Your task to perform on an android device: all mails in gmail Image 0: 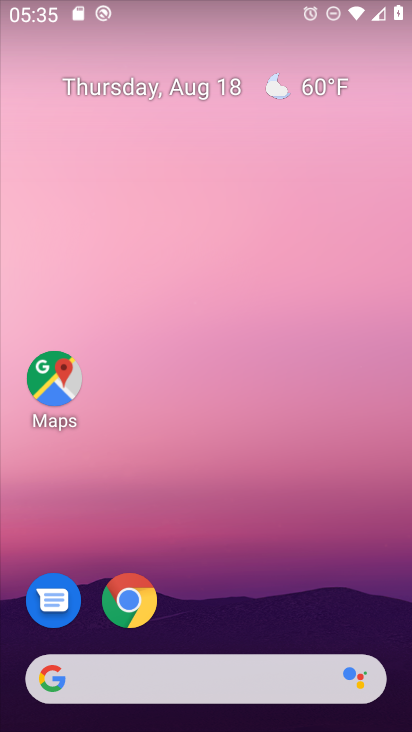
Step 0: press home button
Your task to perform on an android device: all mails in gmail Image 1: 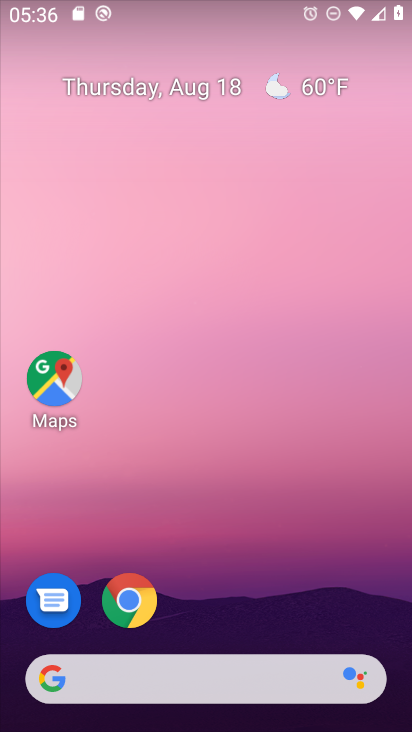
Step 1: drag from (244, 641) to (247, 18)
Your task to perform on an android device: all mails in gmail Image 2: 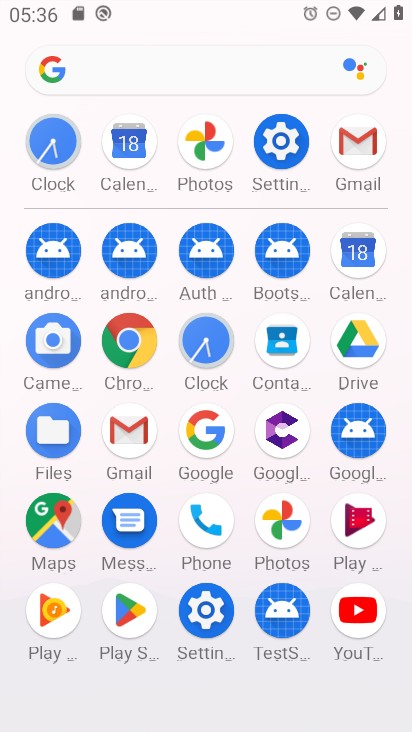
Step 2: click (357, 153)
Your task to perform on an android device: all mails in gmail Image 3: 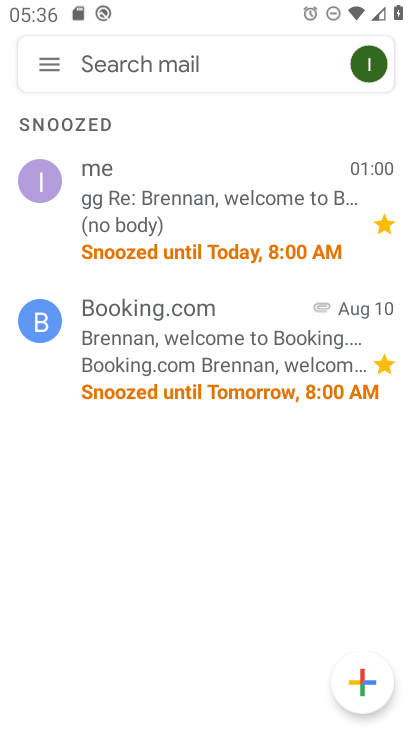
Step 3: click (56, 65)
Your task to perform on an android device: all mails in gmail Image 4: 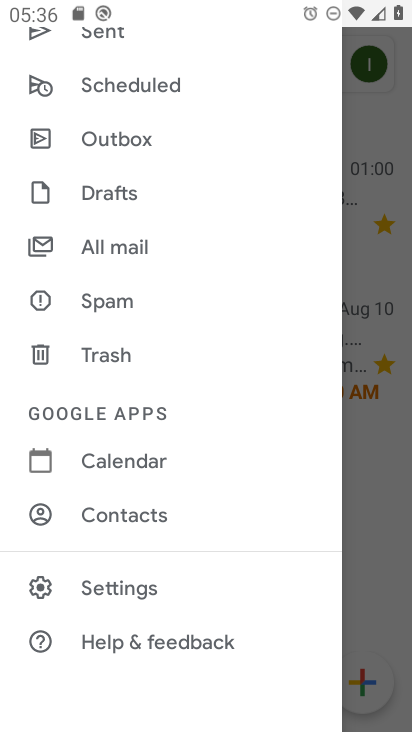
Step 4: click (107, 249)
Your task to perform on an android device: all mails in gmail Image 5: 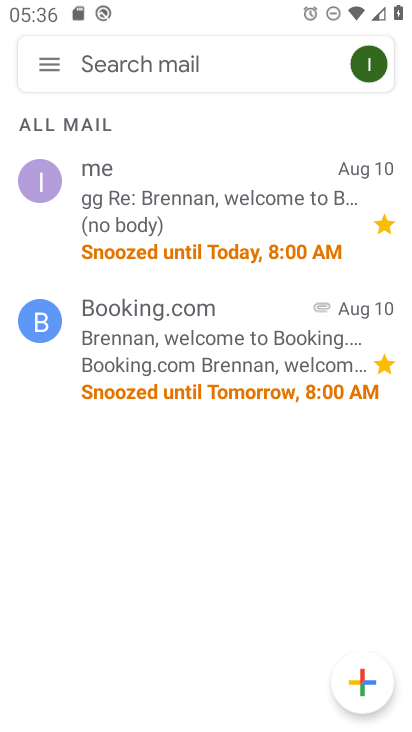
Step 5: task complete